Your task to perform on an android device: Add "usb-c to usb-b" to the cart on walmart.com Image 0: 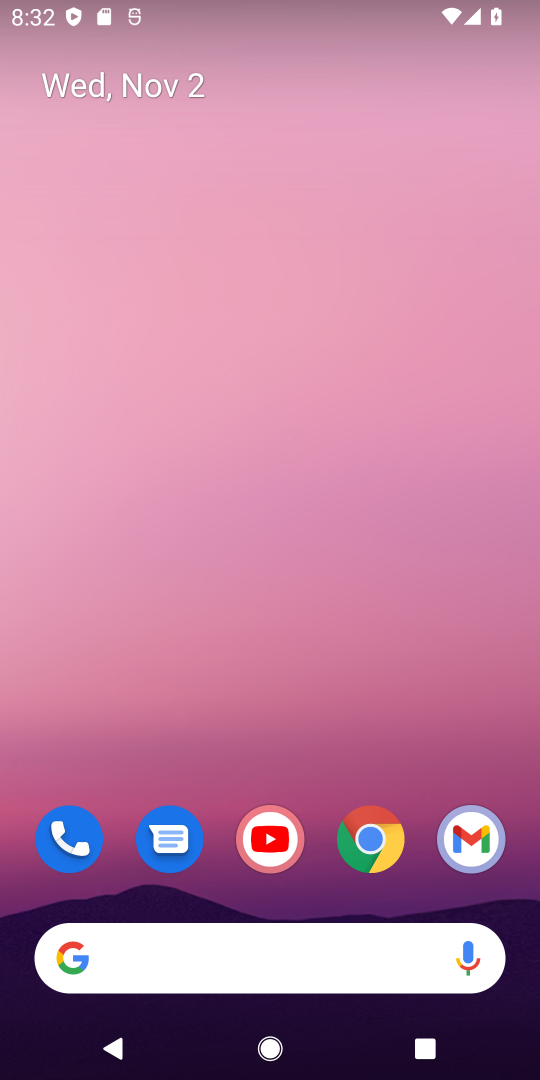
Step 0: click (372, 840)
Your task to perform on an android device: Add "usb-c to usb-b" to the cart on walmart.com Image 1: 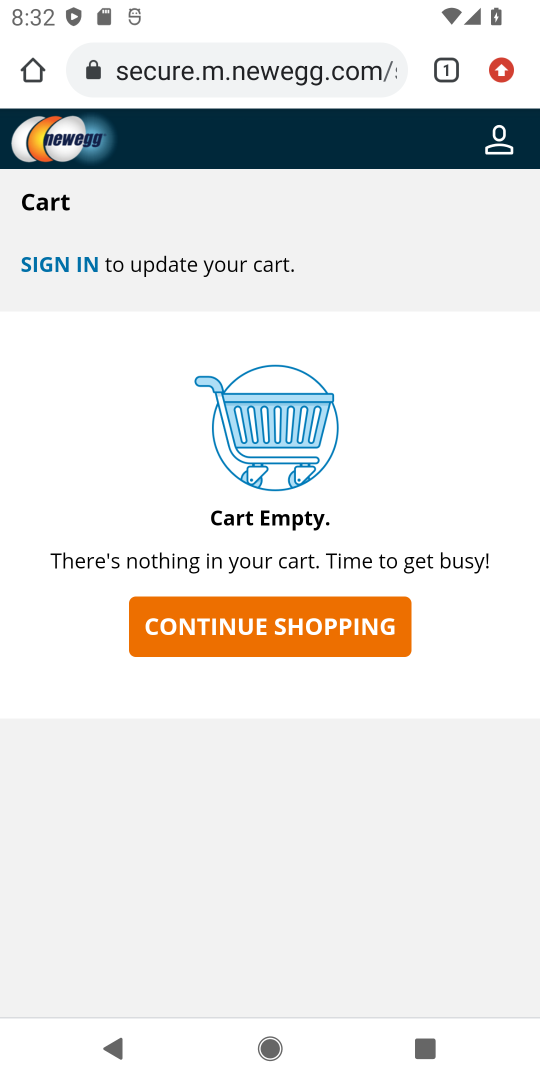
Step 1: click (292, 81)
Your task to perform on an android device: Add "usb-c to usb-b" to the cart on walmart.com Image 2: 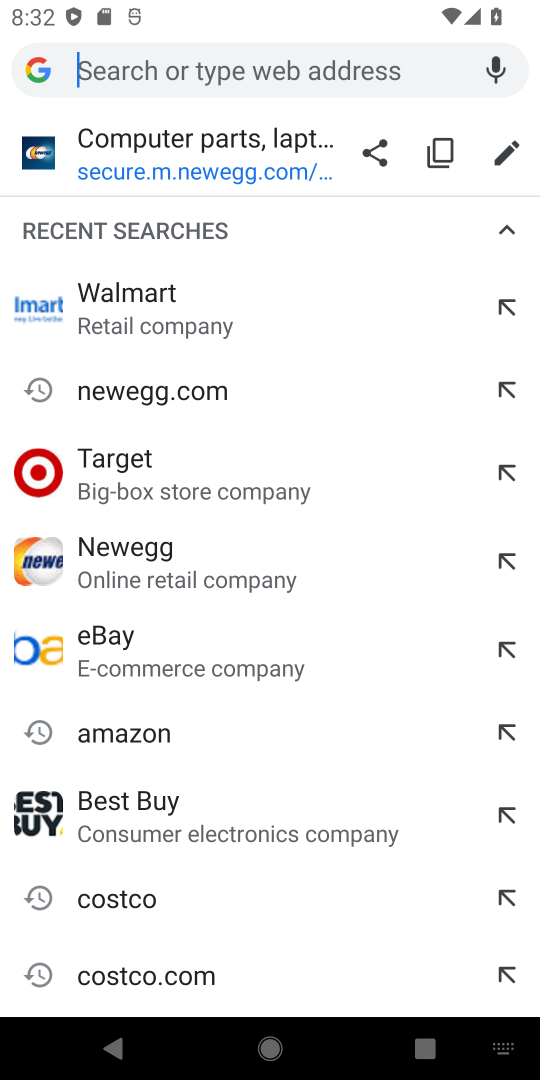
Step 2: type "walmart.com"
Your task to perform on an android device: Add "usb-c to usb-b" to the cart on walmart.com Image 3: 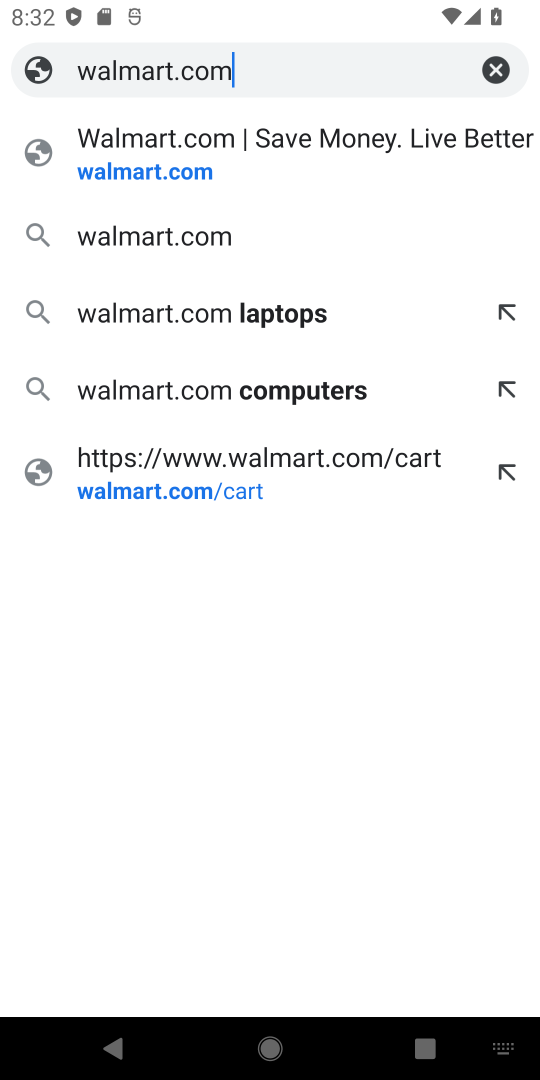
Step 3: click (200, 238)
Your task to perform on an android device: Add "usb-c to usb-b" to the cart on walmart.com Image 4: 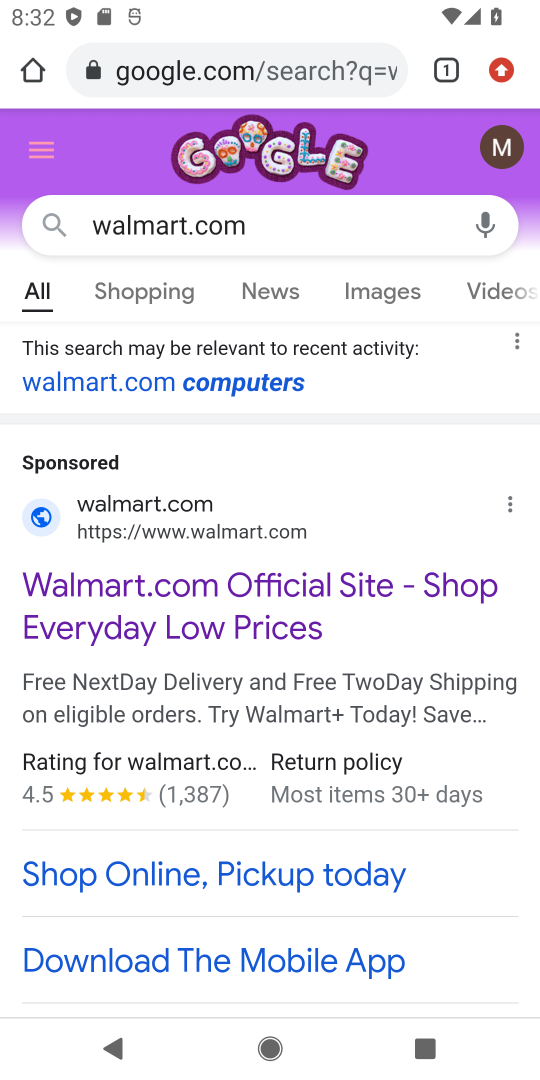
Step 4: drag from (288, 842) to (324, 417)
Your task to perform on an android device: Add "usb-c to usb-b" to the cart on walmart.com Image 5: 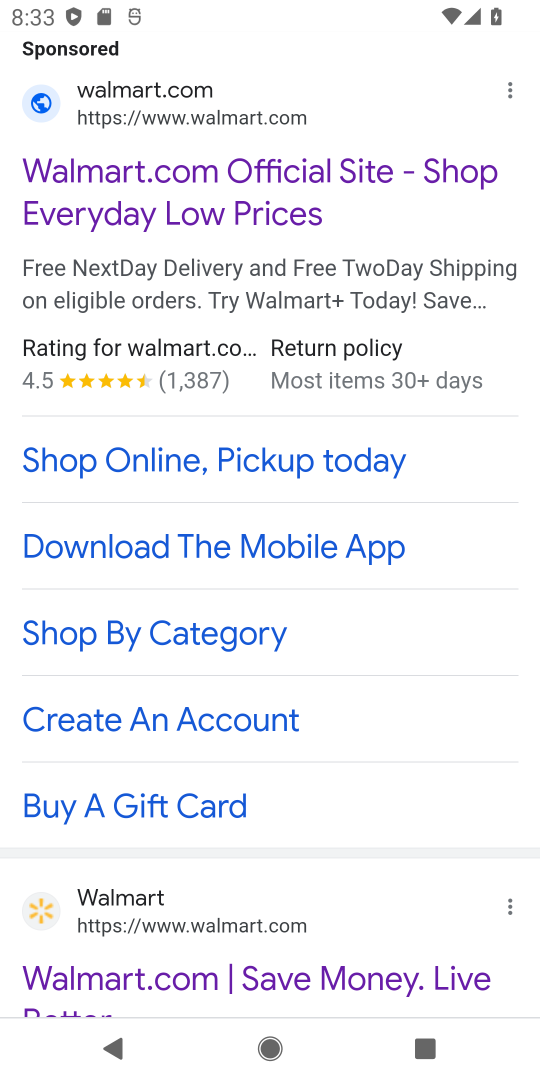
Step 5: click (296, 963)
Your task to perform on an android device: Add "usb-c to usb-b" to the cart on walmart.com Image 6: 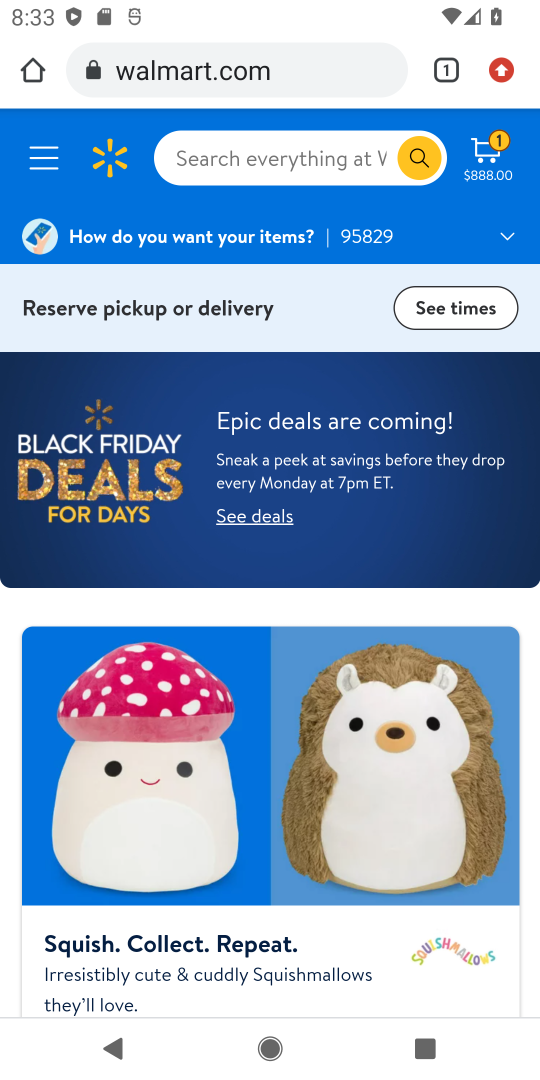
Step 6: click (323, 151)
Your task to perform on an android device: Add "usb-c to usb-b" to the cart on walmart.com Image 7: 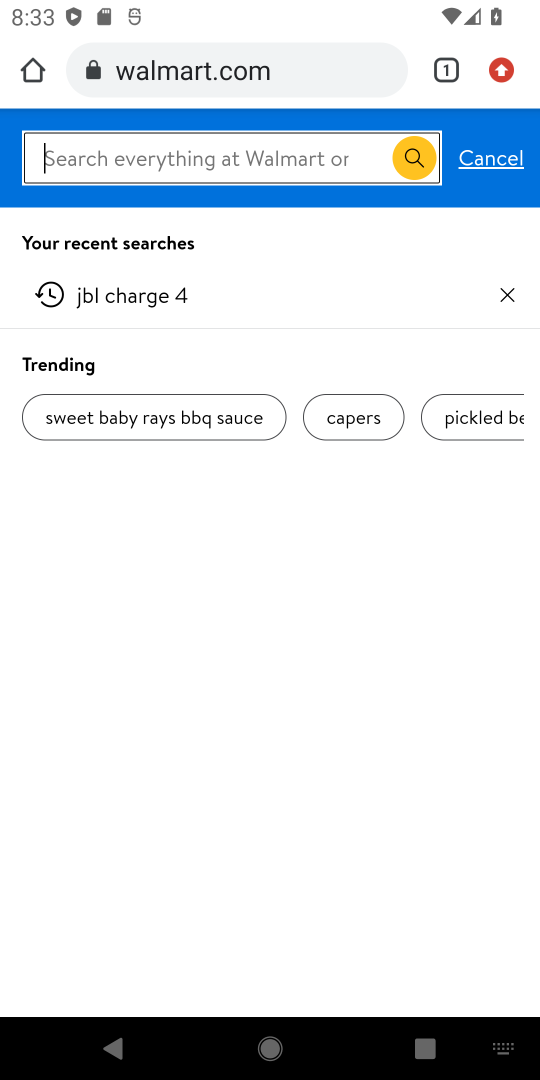
Step 7: type "usb-c to usb-b"
Your task to perform on an android device: Add "usb-c to usb-b" to the cart on walmart.com Image 8: 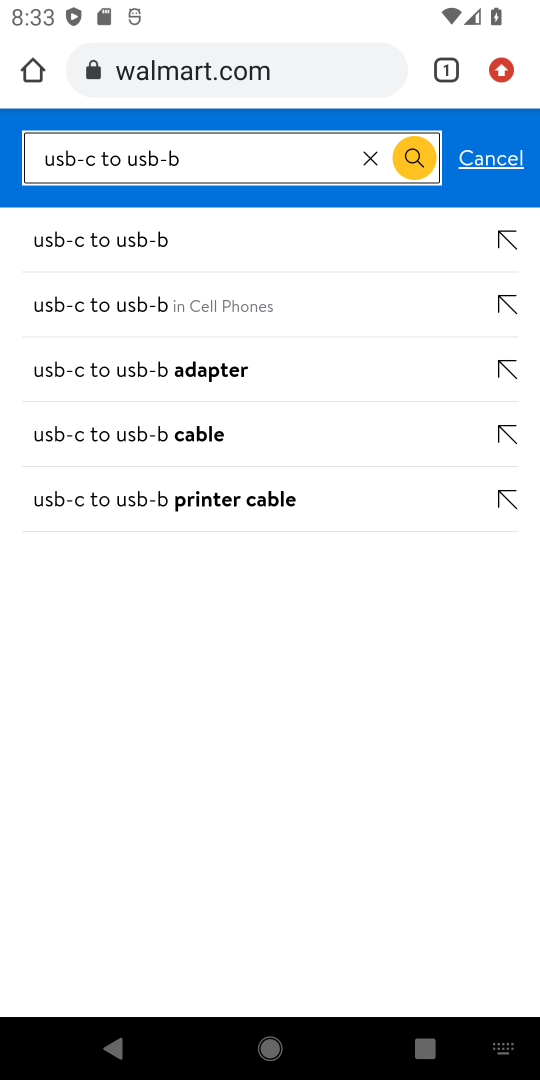
Step 8: click (78, 244)
Your task to perform on an android device: Add "usb-c to usb-b" to the cart on walmart.com Image 9: 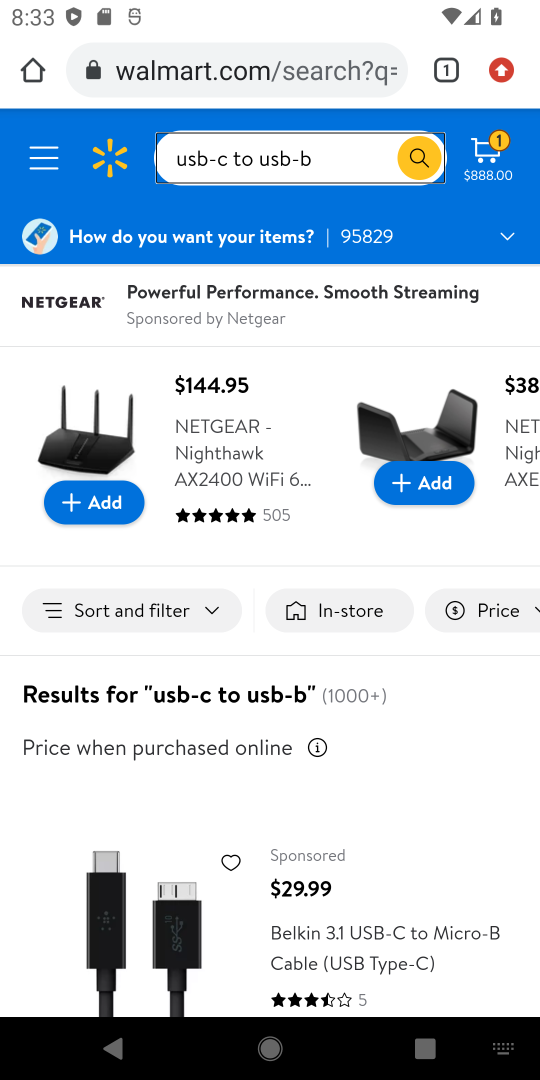
Step 9: drag from (419, 851) to (367, 319)
Your task to perform on an android device: Add "usb-c to usb-b" to the cart on walmart.com Image 10: 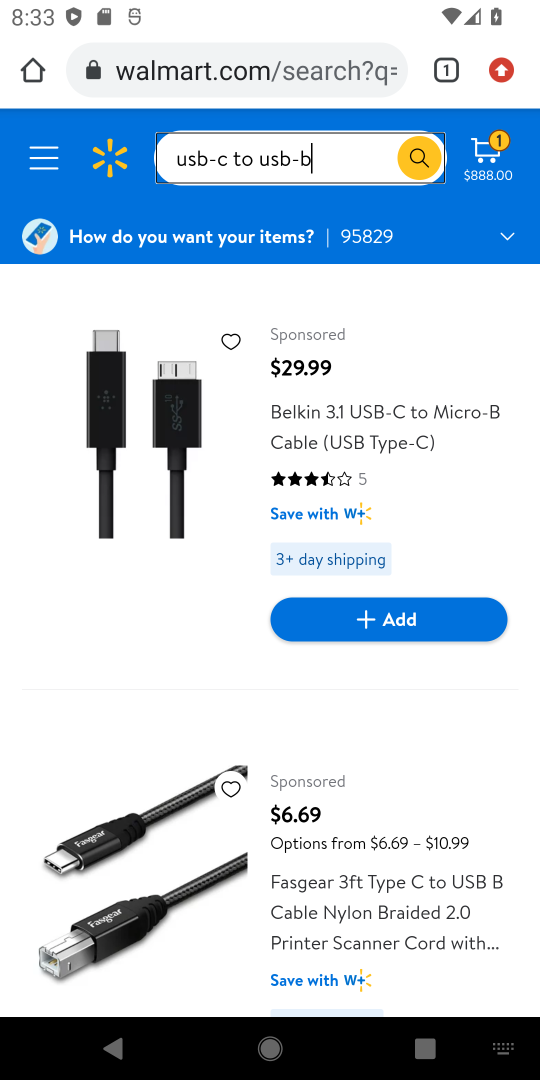
Step 10: click (392, 615)
Your task to perform on an android device: Add "usb-c to usb-b" to the cart on walmart.com Image 11: 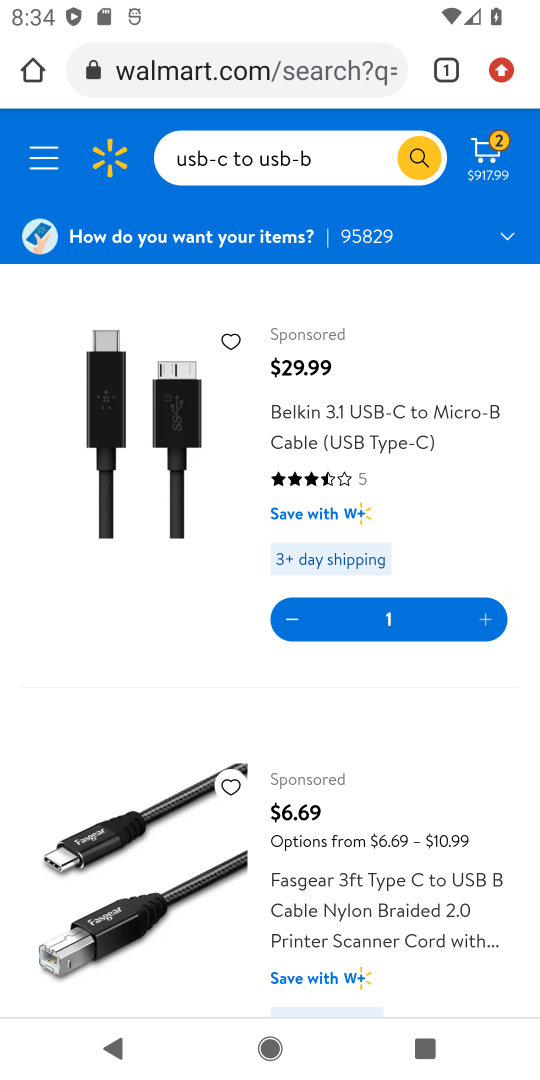
Step 11: task complete